Your task to perform on an android device: turn on priority inbox in the gmail app Image 0: 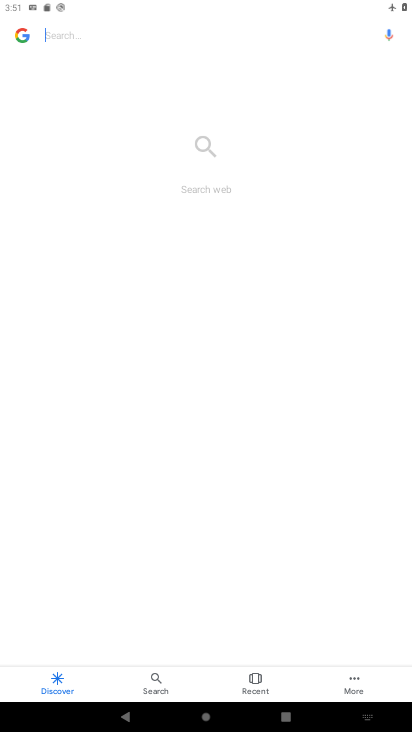
Step 0: press home button
Your task to perform on an android device: turn on priority inbox in the gmail app Image 1: 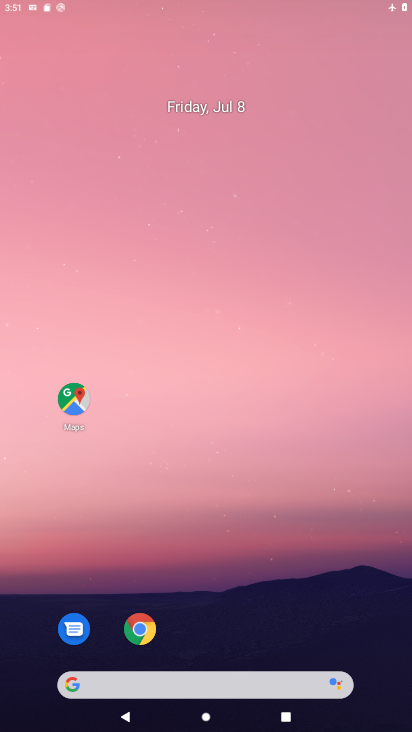
Step 1: drag from (206, 637) to (219, 295)
Your task to perform on an android device: turn on priority inbox in the gmail app Image 2: 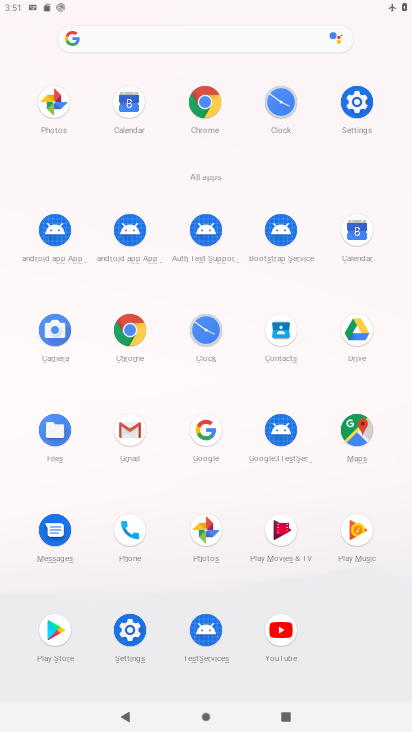
Step 2: click (135, 423)
Your task to perform on an android device: turn on priority inbox in the gmail app Image 3: 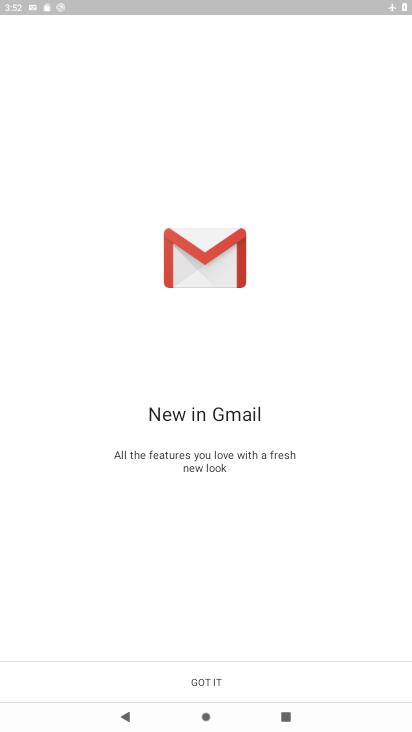
Step 3: click (195, 675)
Your task to perform on an android device: turn on priority inbox in the gmail app Image 4: 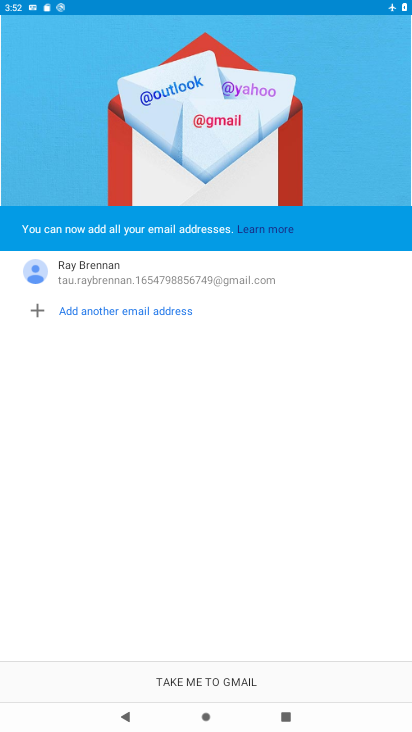
Step 4: click (195, 675)
Your task to perform on an android device: turn on priority inbox in the gmail app Image 5: 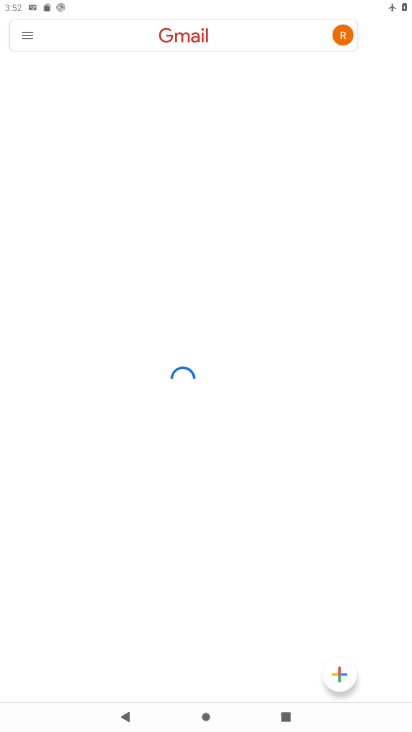
Step 5: click (30, 35)
Your task to perform on an android device: turn on priority inbox in the gmail app Image 6: 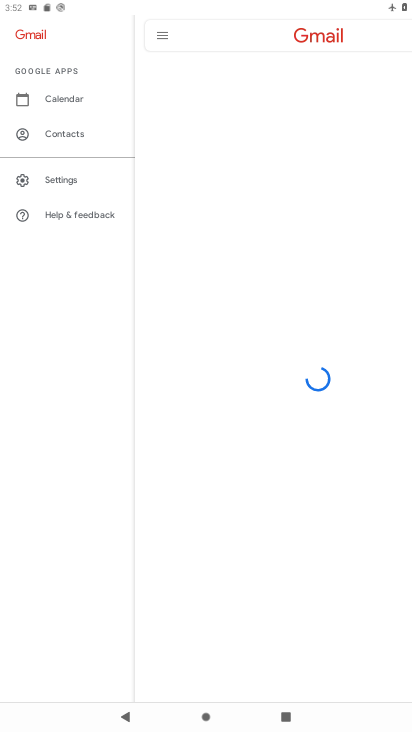
Step 6: click (45, 170)
Your task to perform on an android device: turn on priority inbox in the gmail app Image 7: 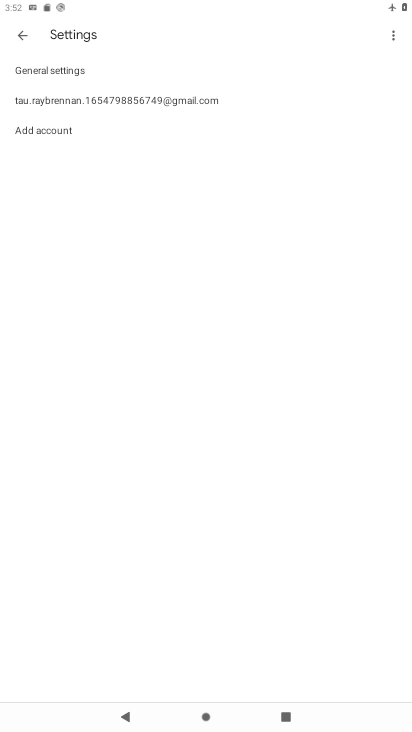
Step 7: click (78, 73)
Your task to perform on an android device: turn on priority inbox in the gmail app Image 8: 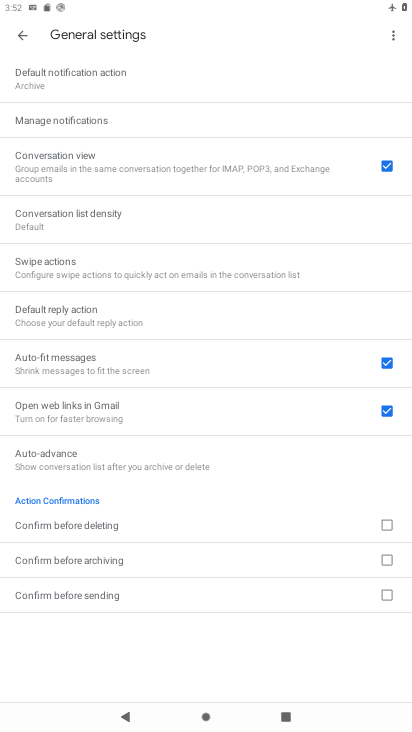
Step 8: click (15, 26)
Your task to perform on an android device: turn on priority inbox in the gmail app Image 9: 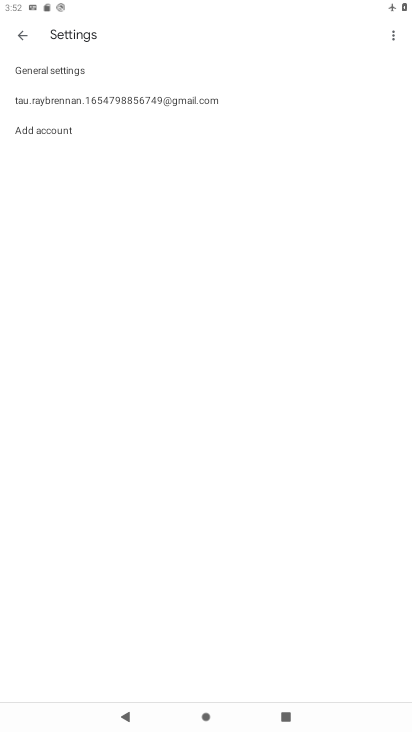
Step 9: click (51, 110)
Your task to perform on an android device: turn on priority inbox in the gmail app Image 10: 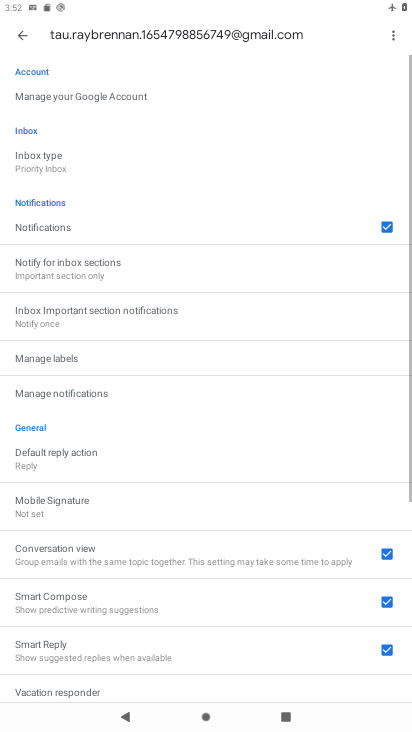
Step 10: click (51, 153)
Your task to perform on an android device: turn on priority inbox in the gmail app Image 11: 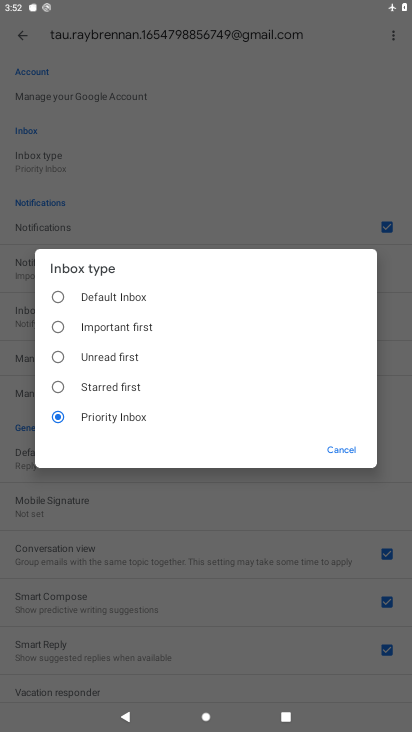
Step 11: task complete